Your task to perform on an android device: Open Youtube and go to "Your channel" Image 0: 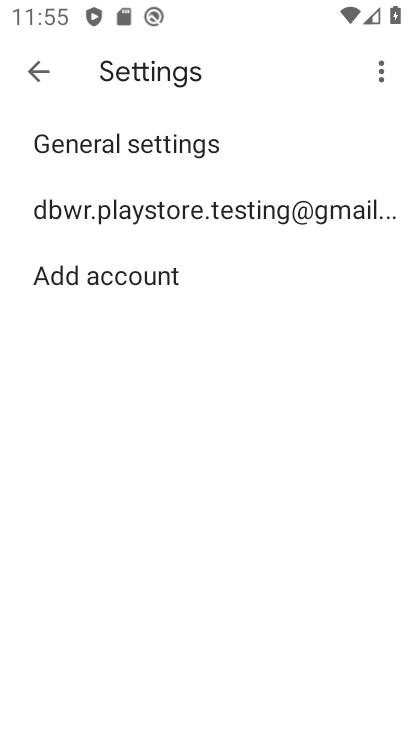
Step 0: press home button
Your task to perform on an android device: Open Youtube and go to "Your channel" Image 1: 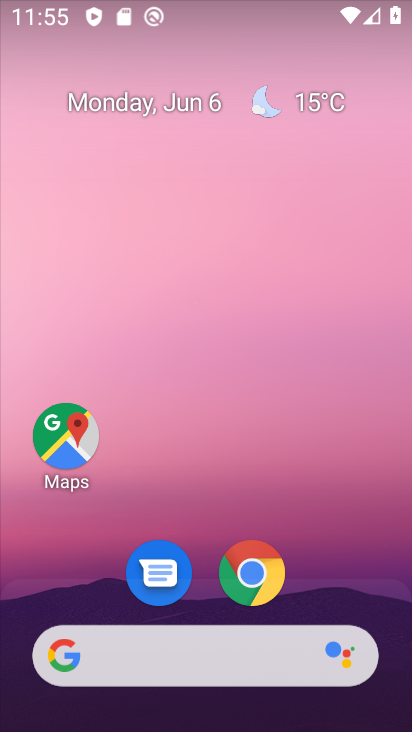
Step 1: drag from (317, 373) to (334, 137)
Your task to perform on an android device: Open Youtube and go to "Your channel" Image 2: 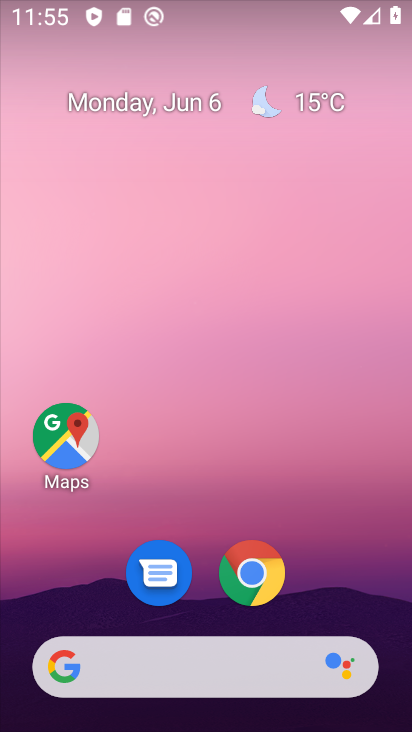
Step 2: drag from (353, 547) to (265, 127)
Your task to perform on an android device: Open Youtube and go to "Your channel" Image 3: 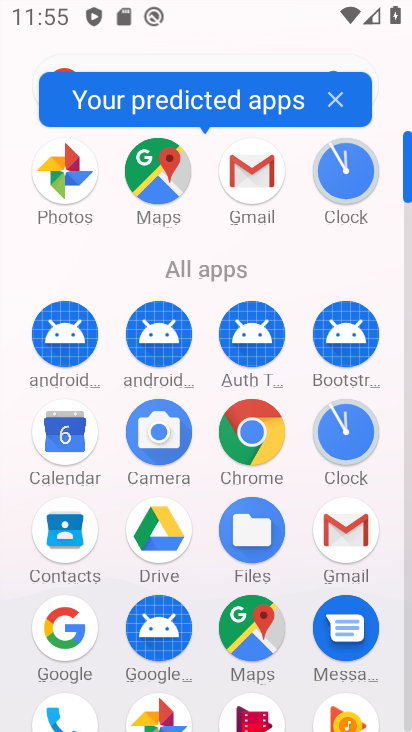
Step 3: drag from (195, 676) to (201, 272)
Your task to perform on an android device: Open Youtube and go to "Your channel" Image 4: 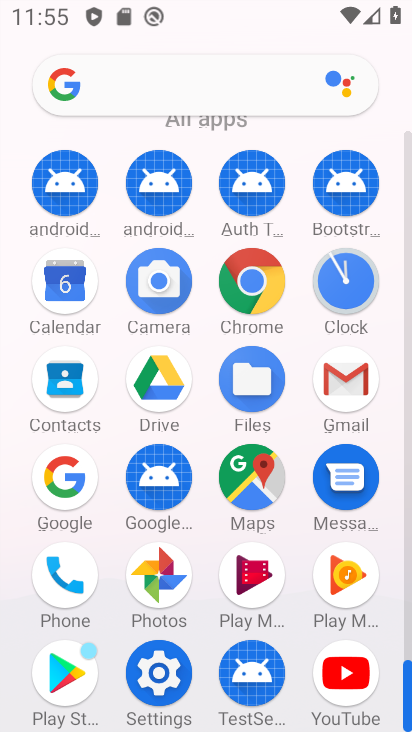
Step 4: click (344, 660)
Your task to perform on an android device: Open Youtube and go to "Your channel" Image 5: 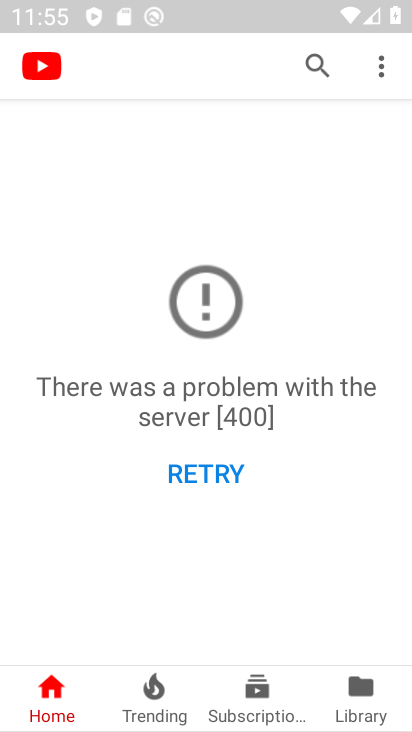
Step 5: click (354, 696)
Your task to perform on an android device: Open Youtube and go to "Your channel" Image 6: 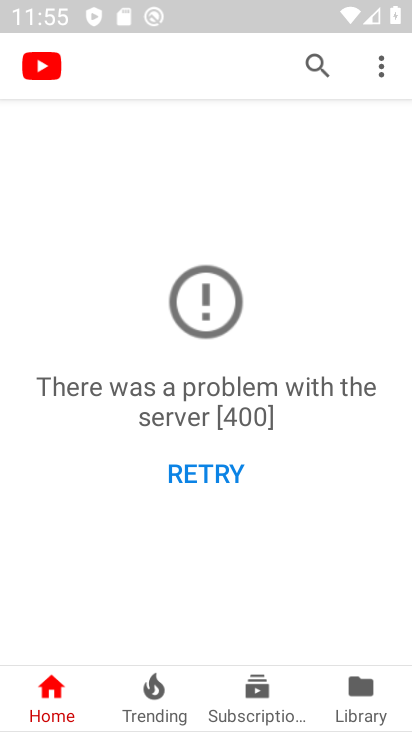
Step 6: click (382, 65)
Your task to perform on an android device: Open Youtube and go to "Your channel" Image 7: 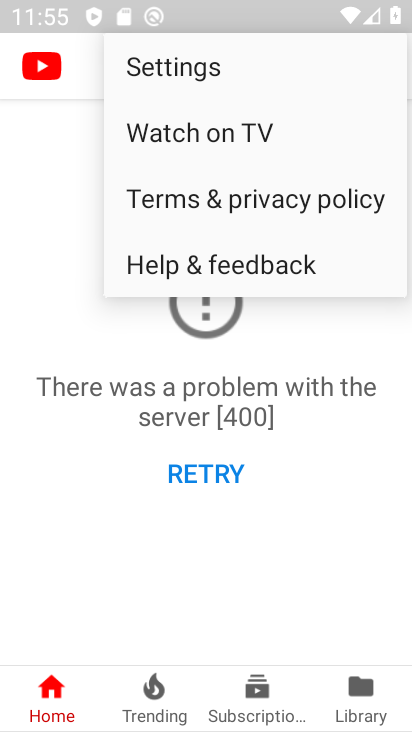
Step 7: click (318, 573)
Your task to perform on an android device: Open Youtube and go to "Your channel" Image 8: 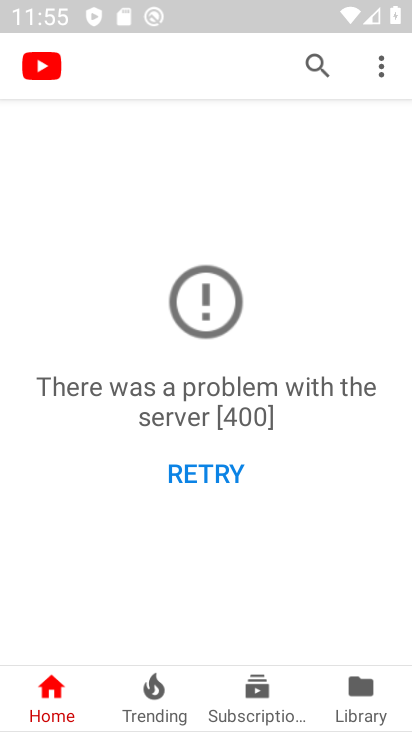
Step 8: click (355, 693)
Your task to perform on an android device: Open Youtube and go to "Your channel" Image 9: 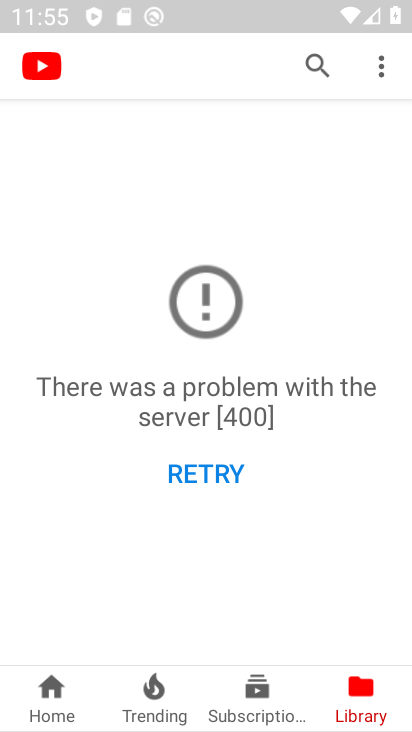
Step 9: click (354, 690)
Your task to perform on an android device: Open Youtube and go to "Your channel" Image 10: 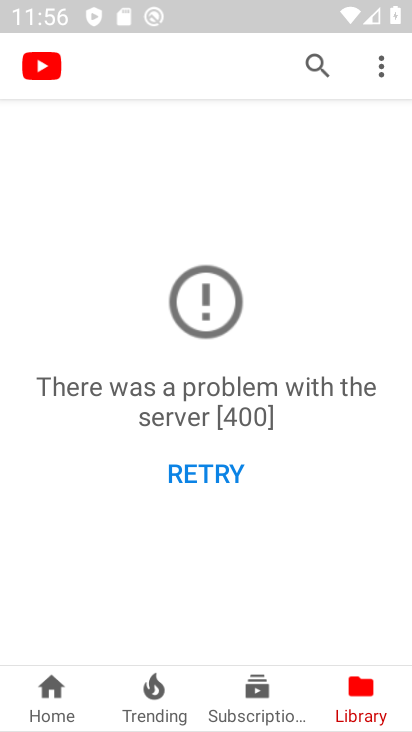
Step 10: click (159, 699)
Your task to perform on an android device: Open Youtube and go to "Your channel" Image 11: 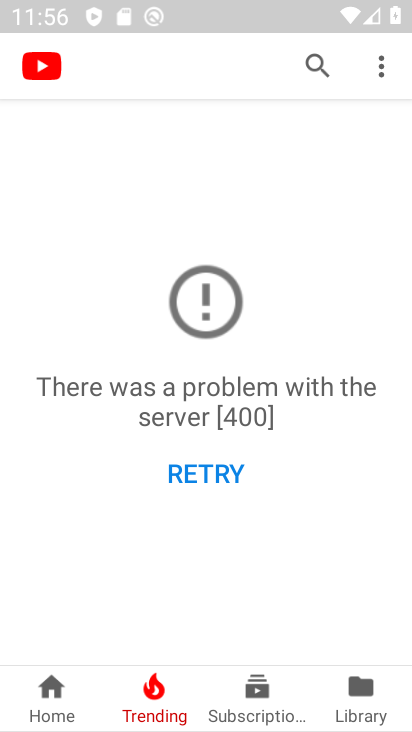
Step 11: click (211, 465)
Your task to perform on an android device: Open Youtube and go to "Your channel" Image 12: 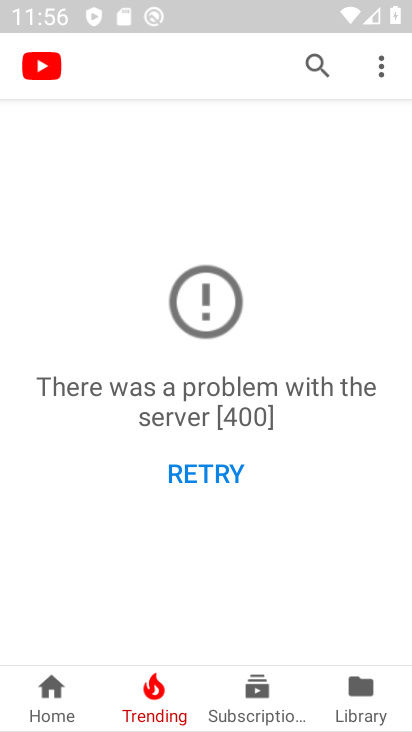
Step 12: click (212, 475)
Your task to perform on an android device: Open Youtube and go to "Your channel" Image 13: 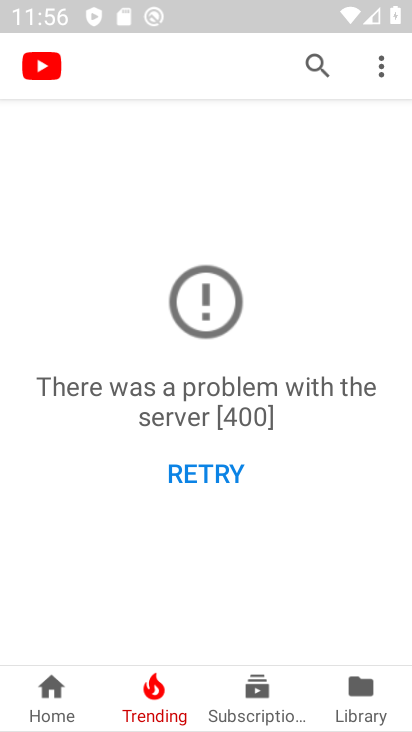
Step 13: click (212, 475)
Your task to perform on an android device: Open Youtube and go to "Your channel" Image 14: 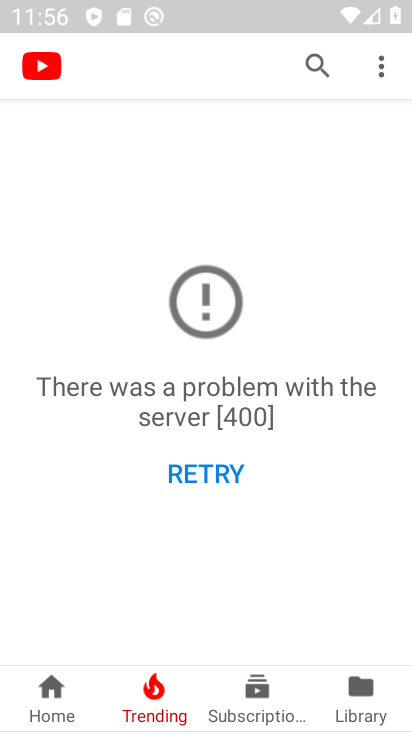
Step 14: task complete